Your task to perform on an android device: change alarm snooze length Image 0: 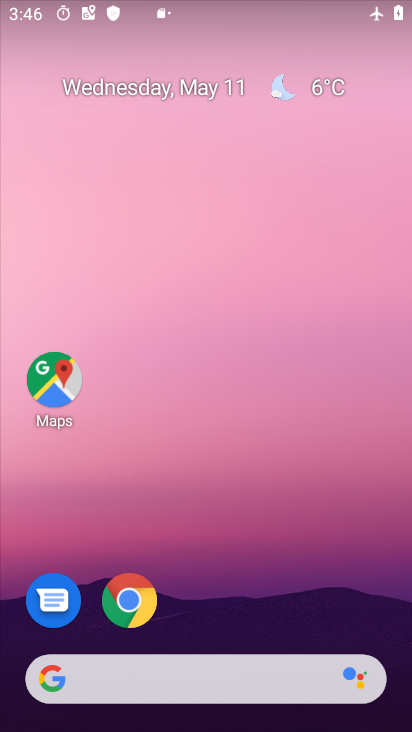
Step 0: drag from (373, 627) to (267, 285)
Your task to perform on an android device: change alarm snooze length Image 1: 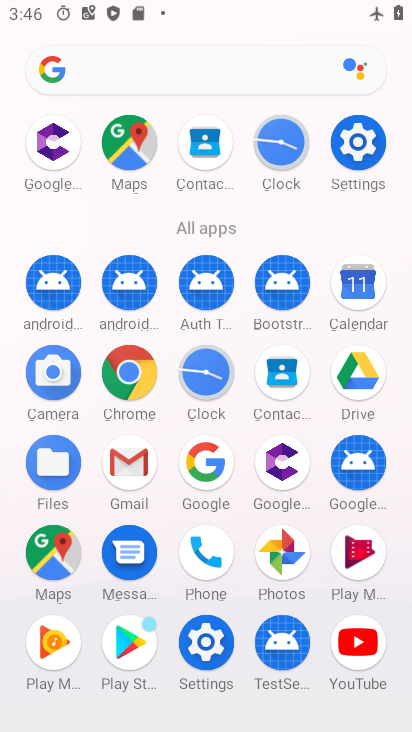
Step 1: click (268, 151)
Your task to perform on an android device: change alarm snooze length Image 2: 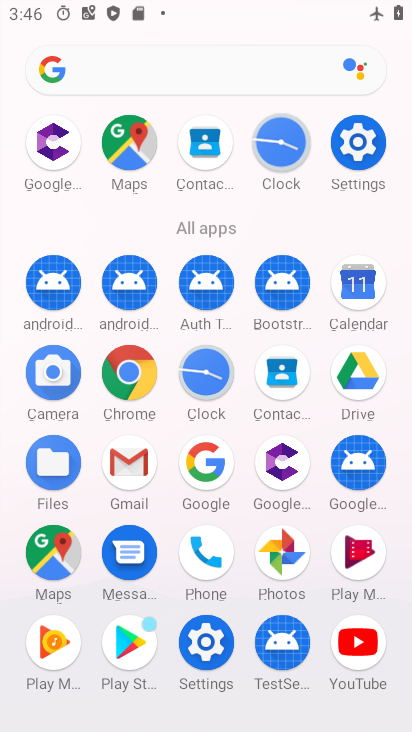
Step 2: click (268, 151)
Your task to perform on an android device: change alarm snooze length Image 3: 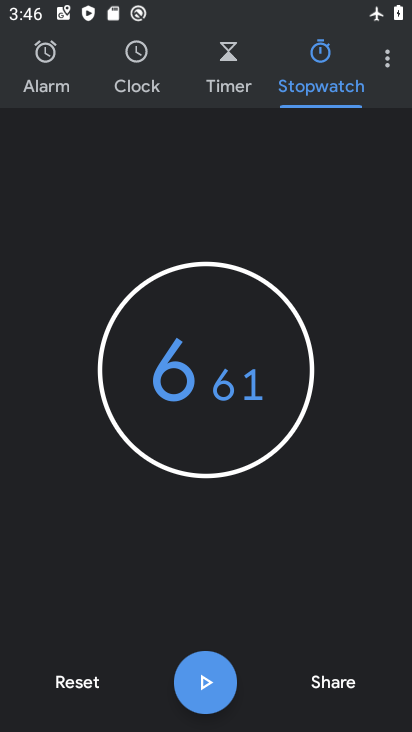
Step 3: click (381, 58)
Your task to perform on an android device: change alarm snooze length Image 4: 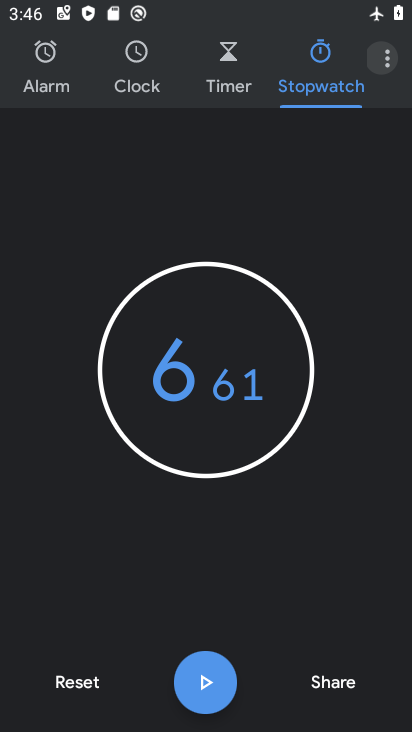
Step 4: click (381, 58)
Your task to perform on an android device: change alarm snooze length Image 5: 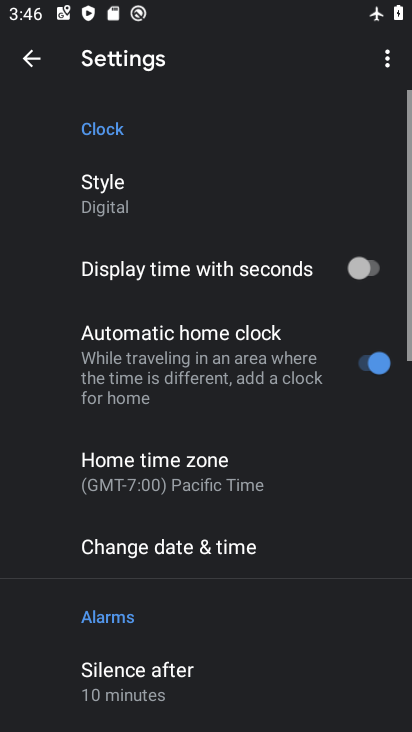
Step 5: drag from (229, 549) to (196, 94)
Your task to perform on an android device: change alarm snooze length Image 6: 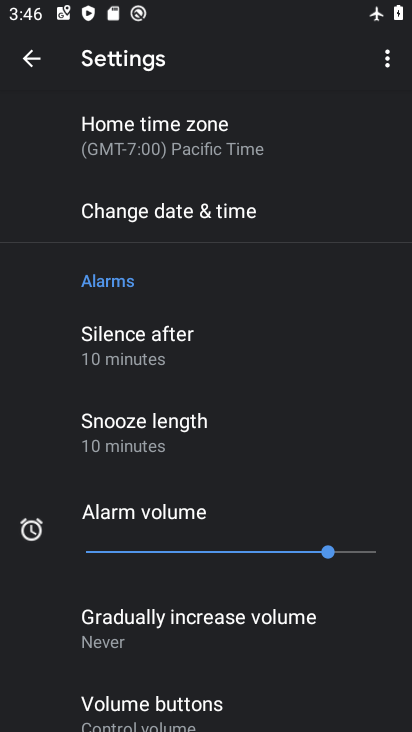
Step 6: drag from (246, 454) to (217, 271)
Your task to perform on an android device: change alarm snooze length Image 7: 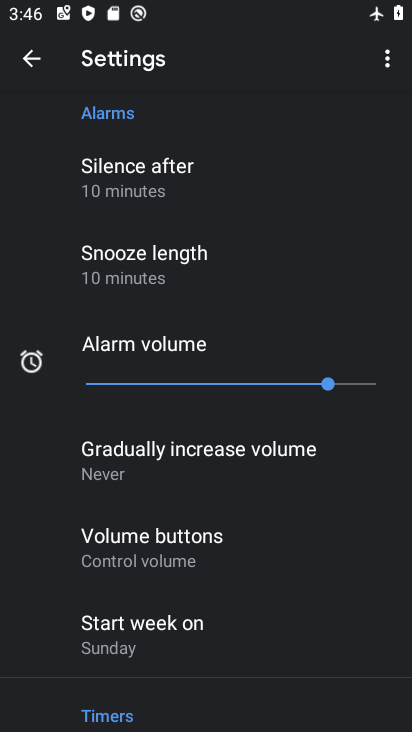
Step 7: click (169, 271)
Your task to perform on an android device: change alarm snooze length Image 8: 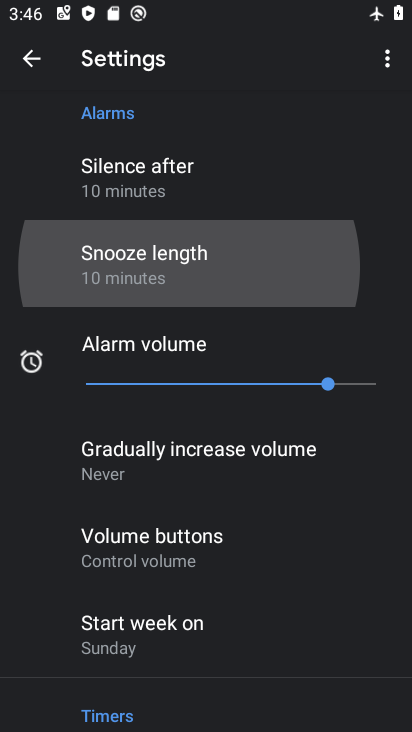
Step 8: click (169, 271)
Your task to perform on an android device: change alarm snooze length Image 9: 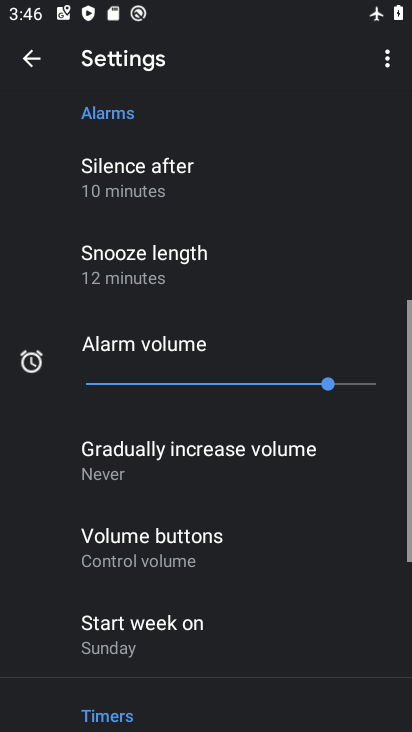
Step 9: click (147, 322)
Your task to perform on an android device: change alarm snooze length Image 10: 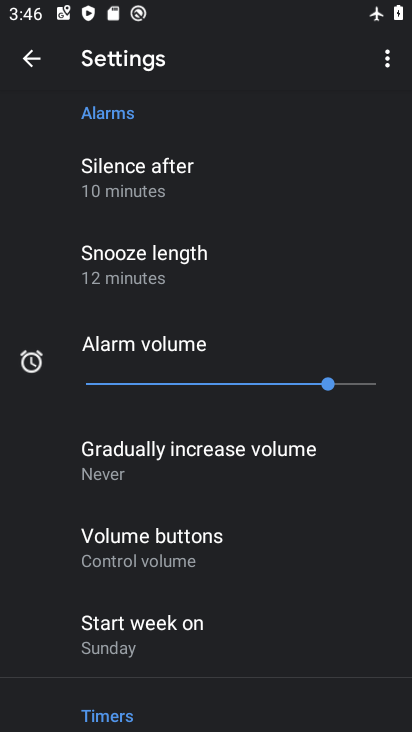
Step 10: click (133, 271)
Your task to perform on an android device: change alarm snooze length Image 11: 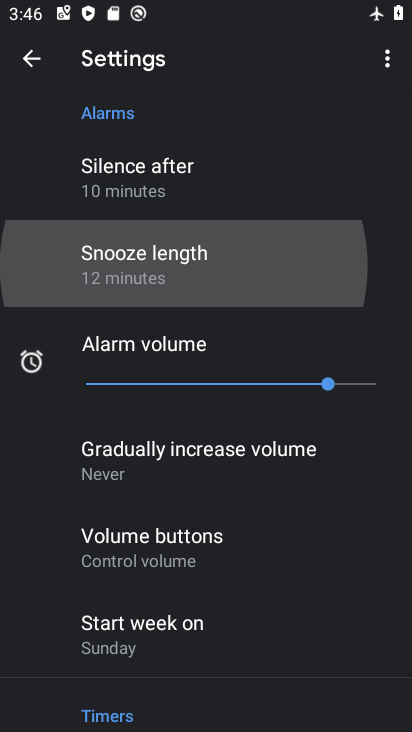
Step 11: click (133, 271)
Your task to perform on an android device: change alarm snooze length Image 12: 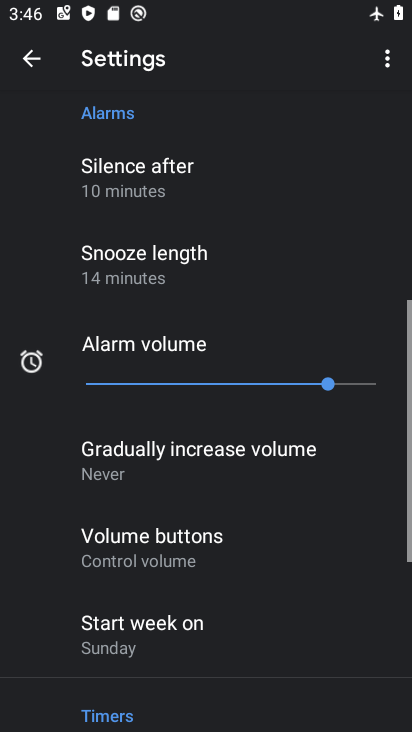
Step 12: click (129, 267)
Your task to perform on an android device: change alarm snooze length Image 13: 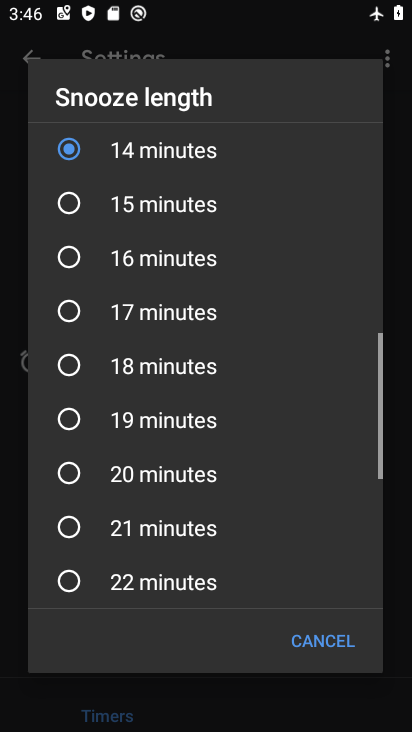
Step 13: click (65, 247)
Your task to perform on an android device: change alarm snooze length Image 14: 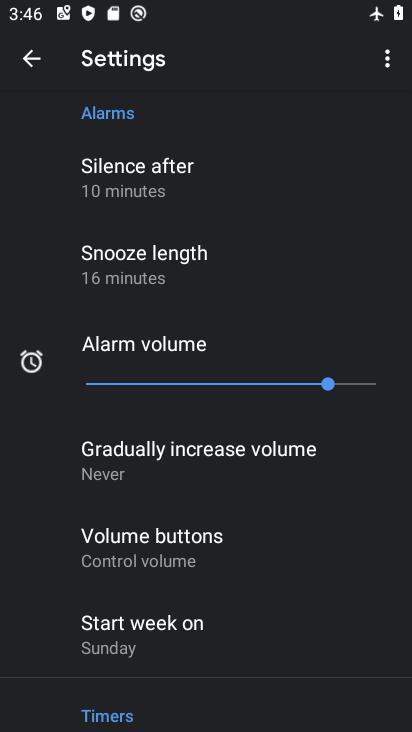
Step 14: task complete